Your task to perform on an android device: Check the weather Image 0: 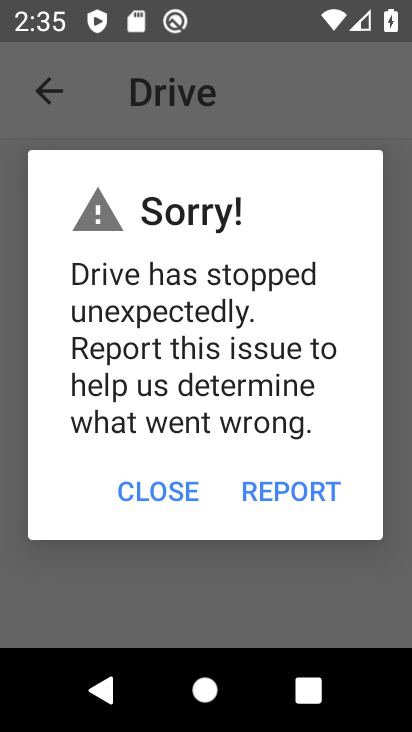
Step 0: press home button
Your task to perform on an android device: Check the weather Image 1: 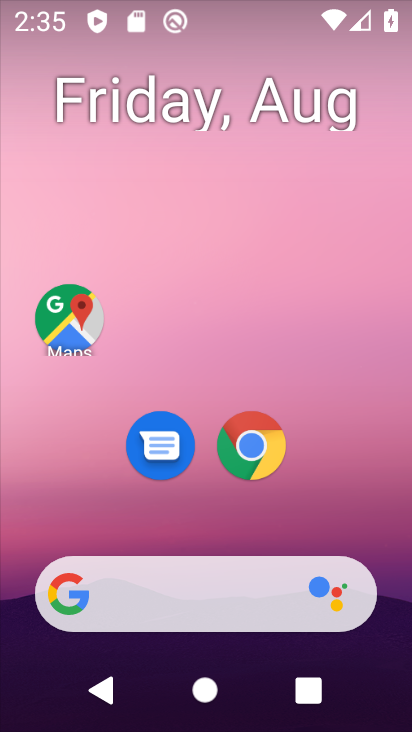
Step 1: drag from (326, 503) to (356, 98)
Your task to perform on an android device: Check the weather Image 2: 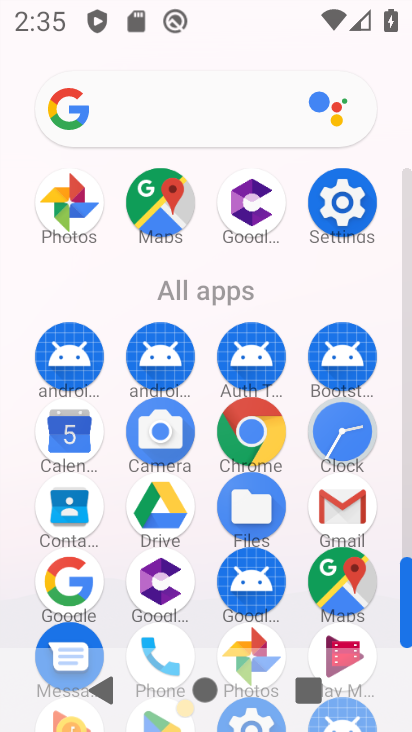
Step 2: click (254, 439)
Your task to perform on an android device: Check the weather Image 3: 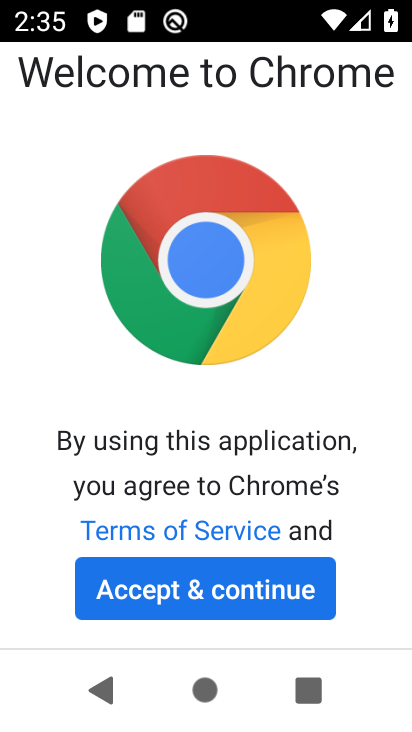
Step 3: click (160, 593)
Your task to perform on an android device: Check the weather Image 4: 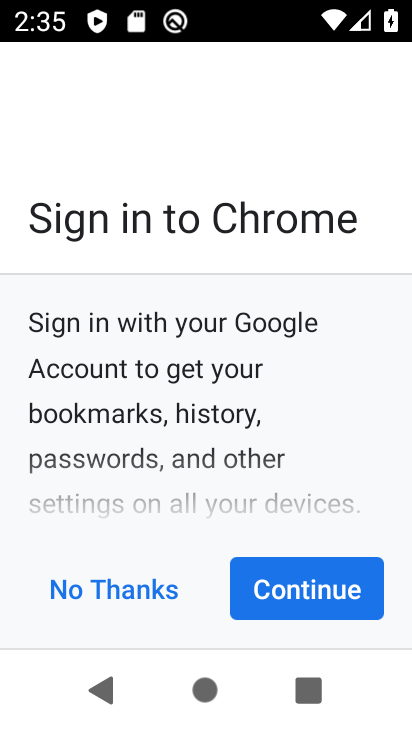
Step 4: click (273, 599)
Your task to perform on an android device: Check the weather Image 5: 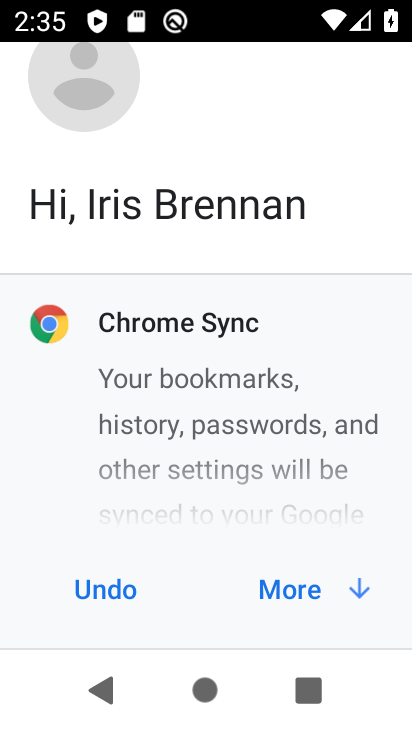
Step 5: click (273, 599)
Your task to perform on an android device: Check the weather Image 6: 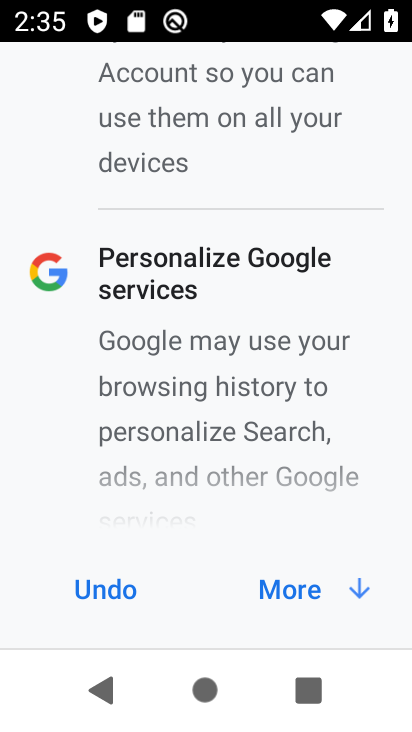
Step 6: click (284, 577)
Your task to perform on an android device: Check the weather Image 7: 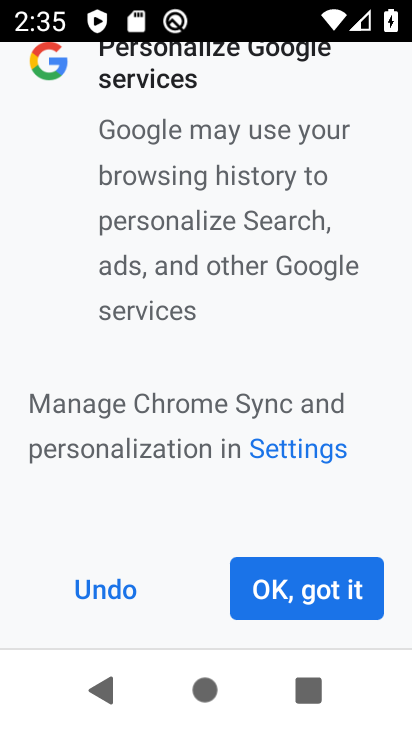
Step 7: click (284, 577)
Your task to perform on an android device: Check the weather Image 8: 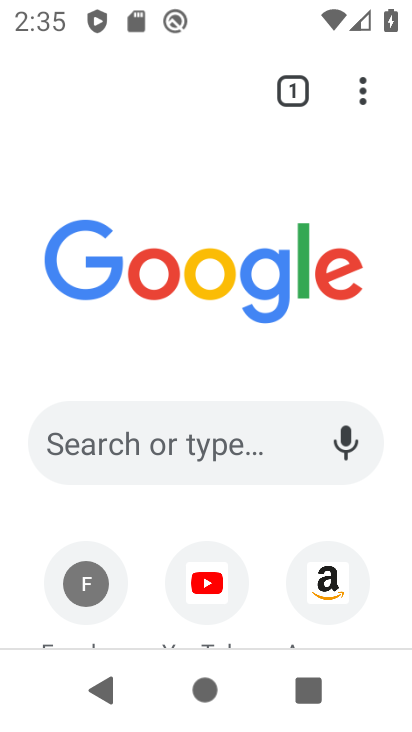
Step 8: click (254, 441)
Your task to perform on an android device: Check the weather Image 9: 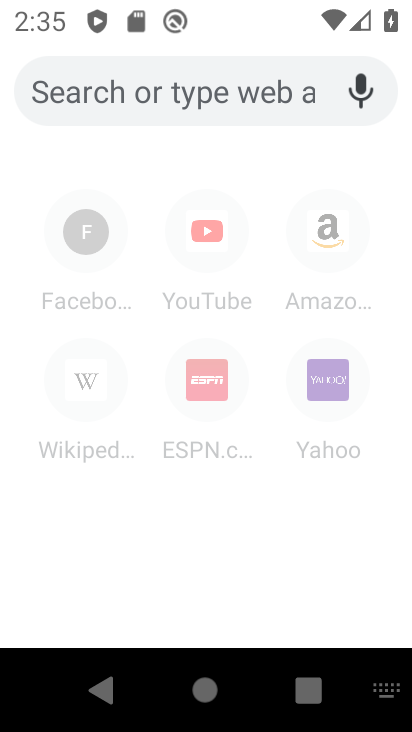
Step 9: type "weather"
Your task to perform on an android device: Check the weather Image 10: 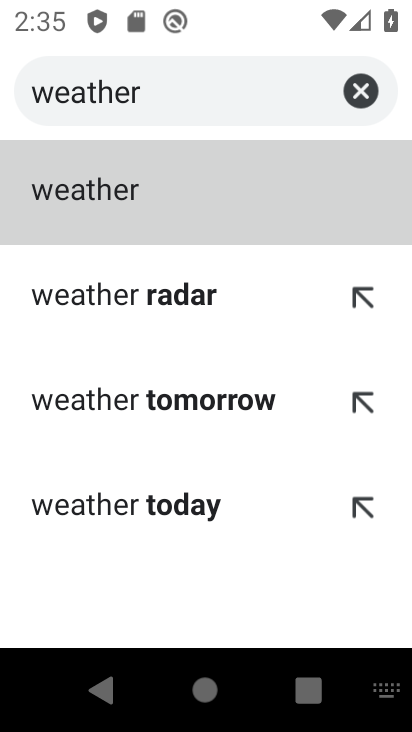
Step 10: click (129, 166)
Your task to perform on an android device: Check the weather Image 11: 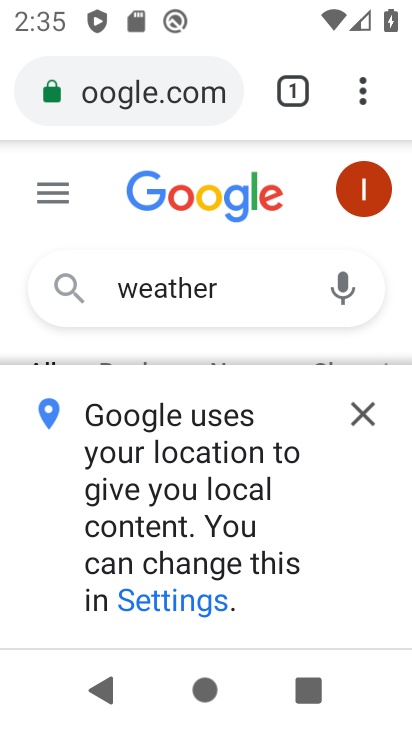
Step 11: task complete